Your task to perform on an android device: turn notification dots off Image 0: 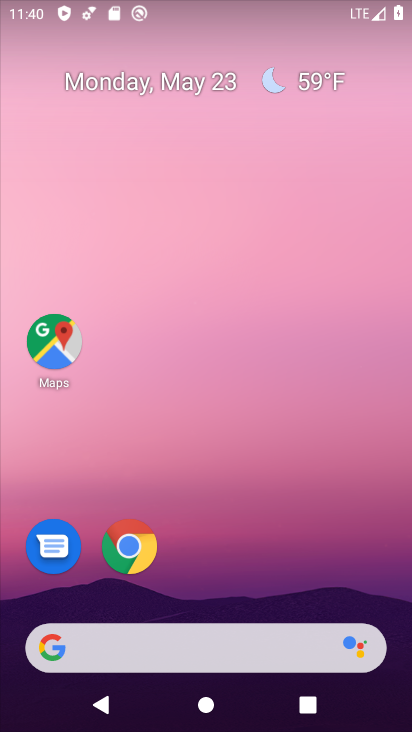
Step 0: click (298, 163)
Your task to perform on an android device: turn notification dots off Image 1: 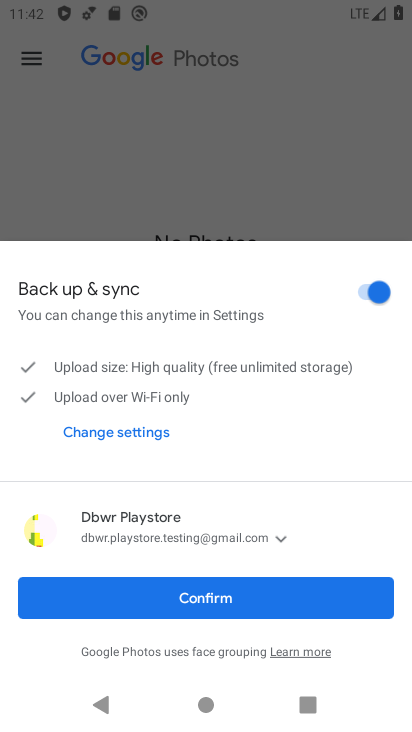
Step 1: press home button
Your task to perform on an android device: turn notification dots off Image 2: 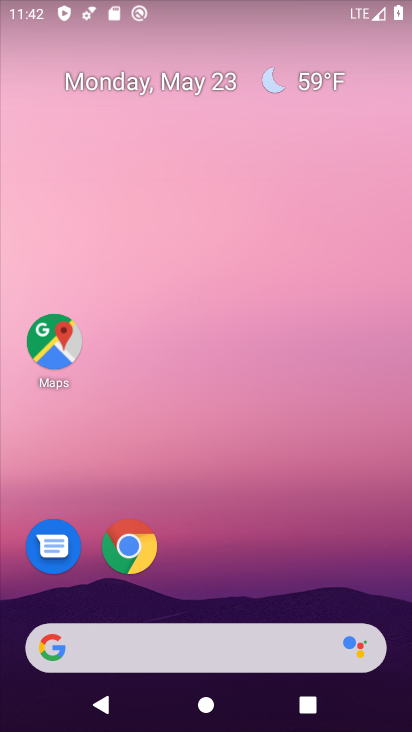
Step 2: drag from (200, 569) to (371, 22)
Your task to perform on an android device: turn notification dots off Image 3: 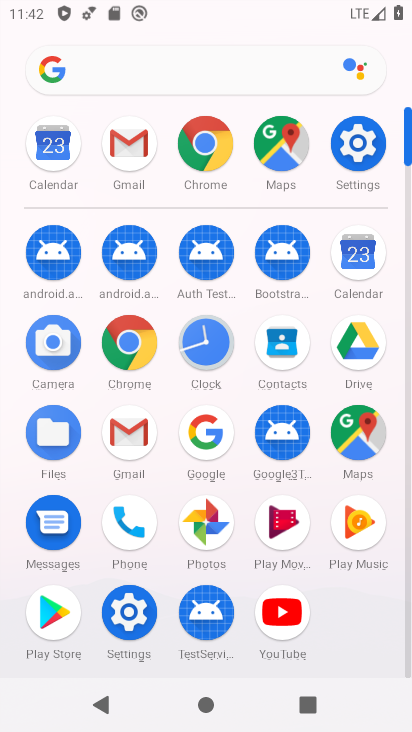
Step 3: click (349, 183)
Your task to perform on an android device: turn notification dots off Image 4: 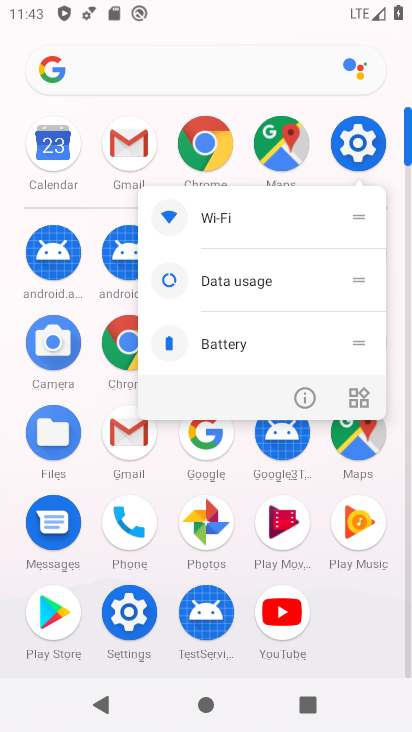
Step 4: click (365, 151)
Your task to perform on an android device: turn notification dots off Image 5: 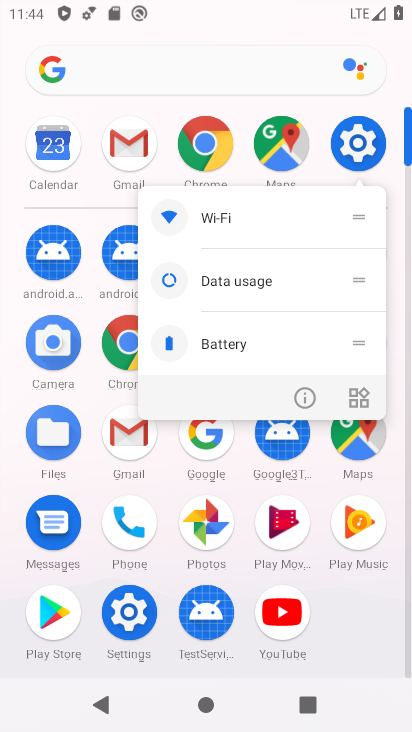
Step 5: click (304, 387)
Your task to perform on an android device: turn notification dots off Image 6: 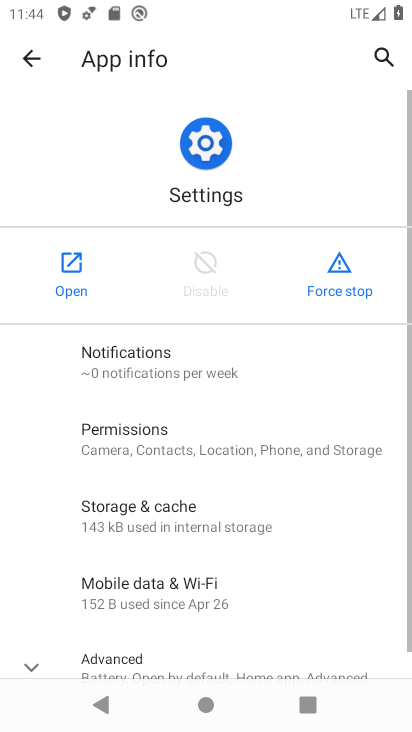
Step 6: click (73, 260)
Your task to perform on an android device: turn notification dots off Image 7: 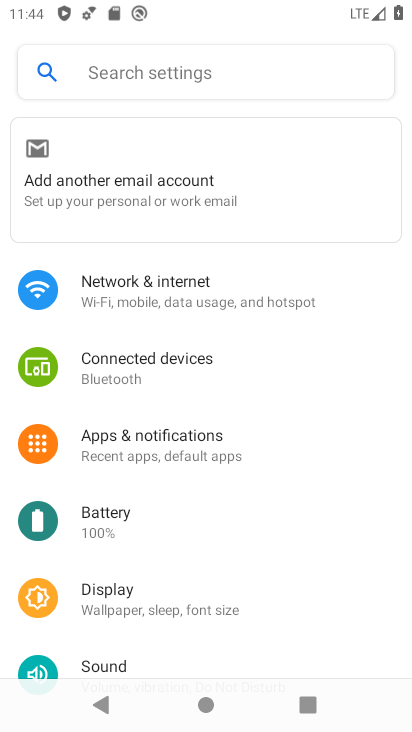
Step 7: click (196, 434)
Your task to perform on an android device: turn notification dots off Image 8: 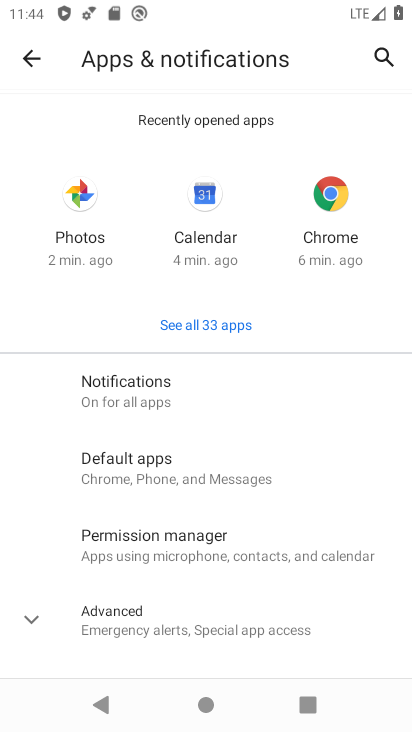
Step 8: click (200, 392)
Your task to perform on an android device: turn notification dots off Image 9: 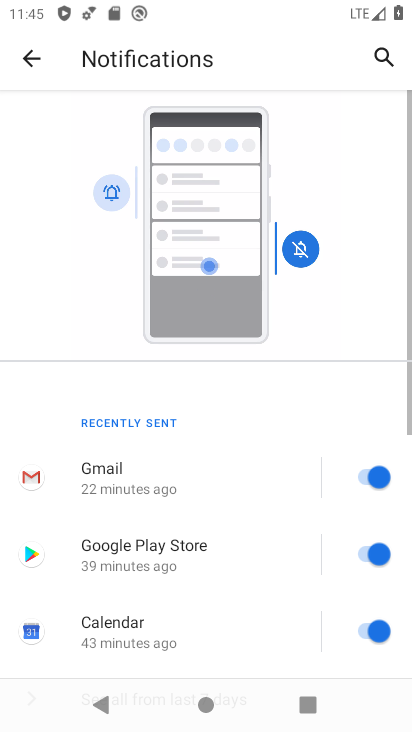
Step 9: drag from (244, 602) to (314, 44)
Your task to perform on an android device: turn notification dots off Image 10: 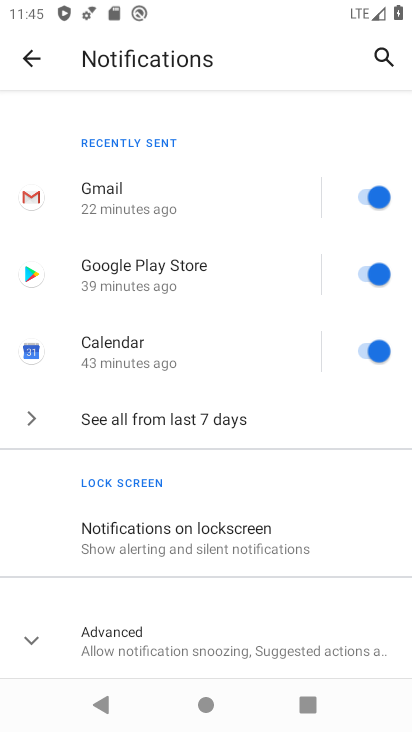
Step 10: click (233, 531)
Your task to perform on an android device: turn notification dots off Image 11: 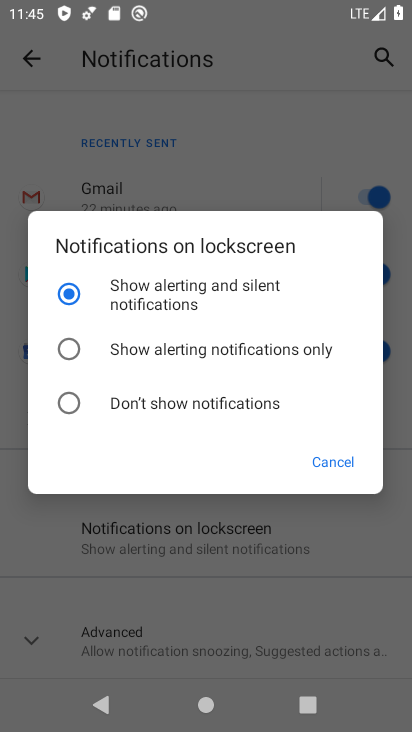
Step 11: click (335, 465)
Your task to perform on an android device: turn notification dots off Image 12: 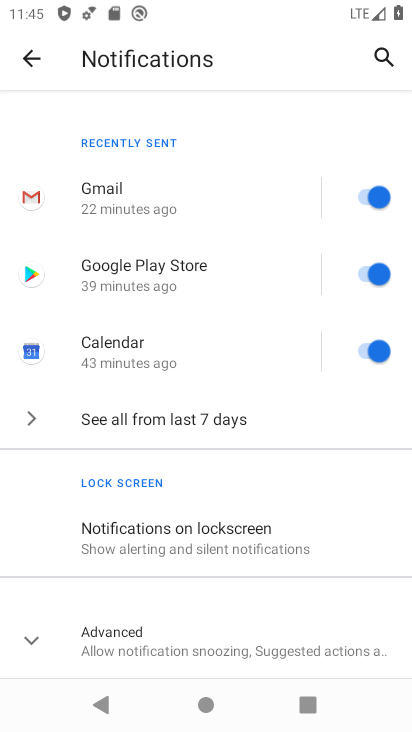
Step 12: click (201, 657)
Your task to perform on an android device: turn notification dots off Image 13: 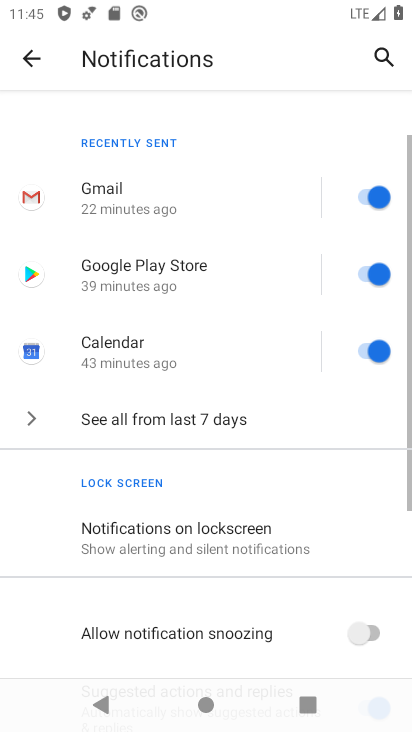
Step 13: task complete